Your task to perform on an android device: toggle location history Image 0: 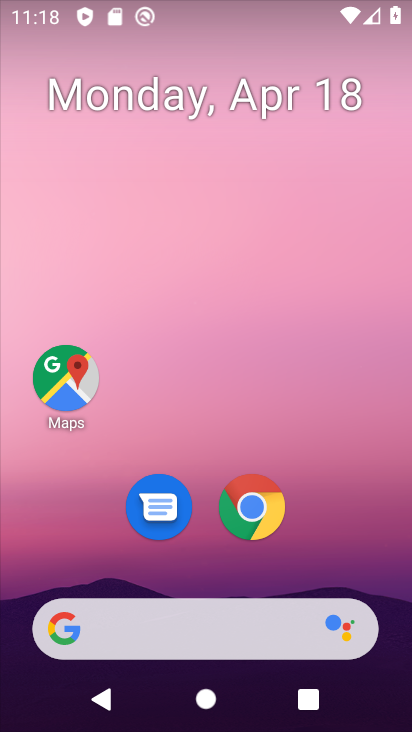
Step 0: drag from (331, 523) to (308, 200)
Your task to perform on an android device: toggle location history Image 1: 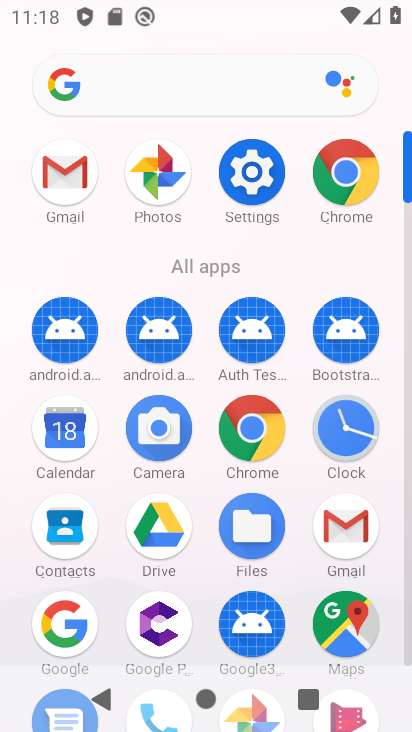
Step 1: click (266, 169)
Your task to perform on an android device: toggle location history Image 2: 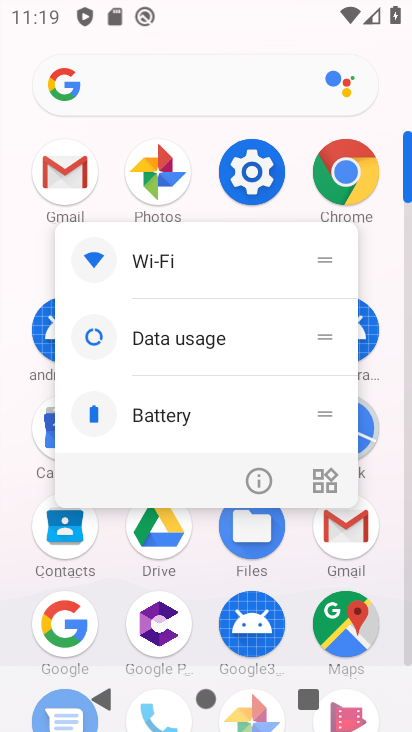
Step 2: click (257, 173)
Your task to perform on an android device: toggle location history Image 3: 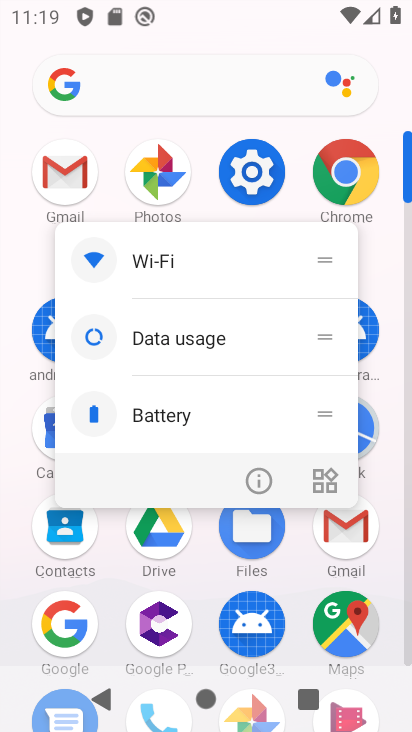
Step 3: click (257, 173)
Your task to perform on an android device: toggle location history Image 4: 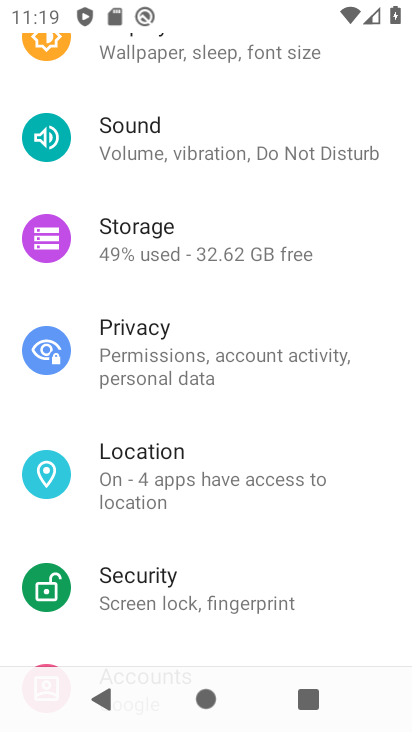
Step 4: click (217, 489)
Your task to perform on an android device: toggle location history Image 5: 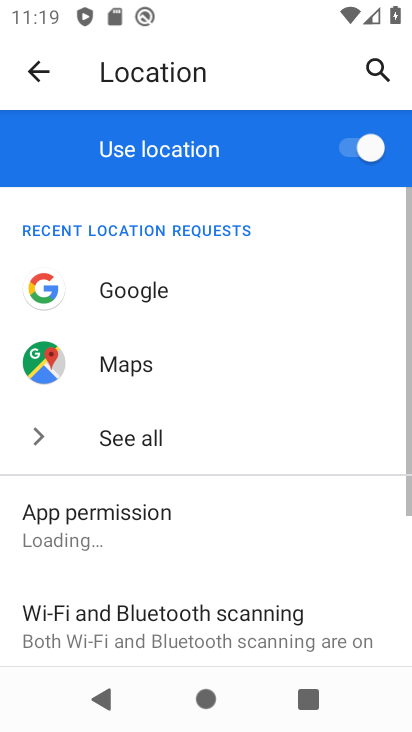
Step 5: drag from (219, 568) to (237, 245)
Your task to perform on an android device: toggle location history Image 6: 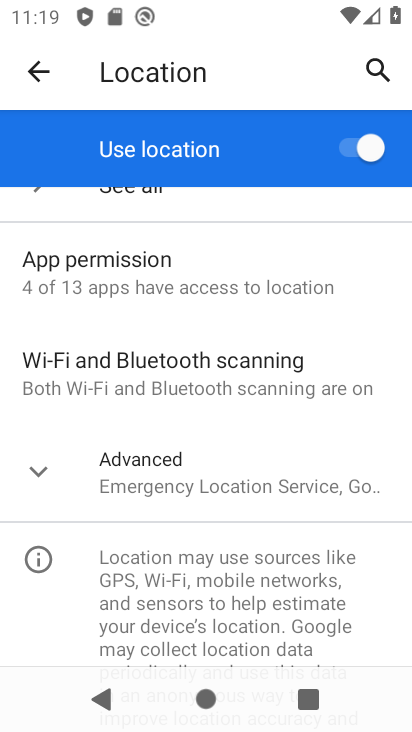
Step 6: click (37, 472)
Your task to perform on an android device: toggle location history Image 7: 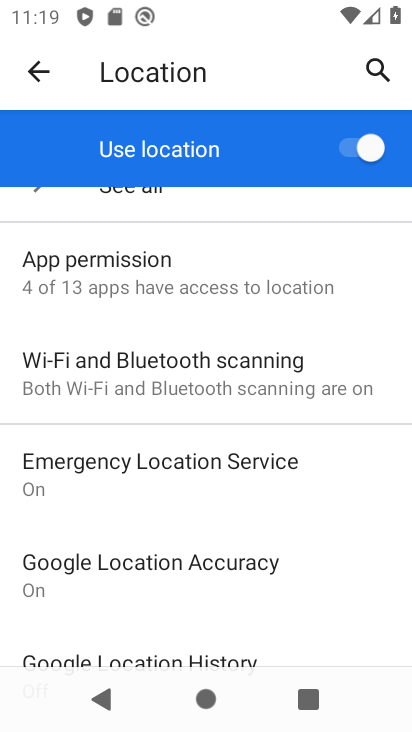
Step 7: drag from (254, 588) to (252, 354)
Your task to perform on an android device: toggle location history Image 8: 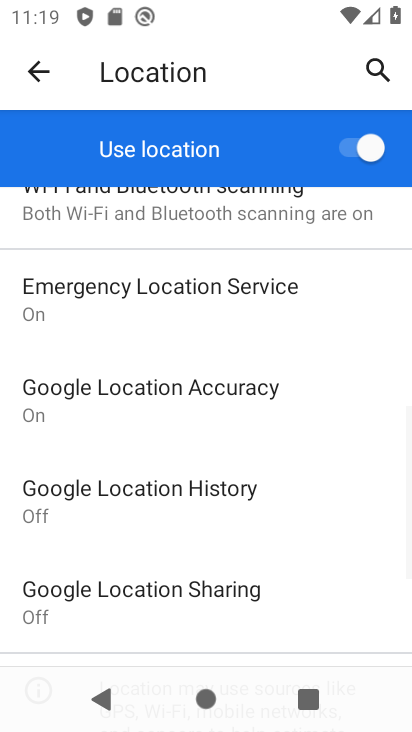
Step 8: click (234, 499)
Your task to perform on an android device: toggle location history Image 9: 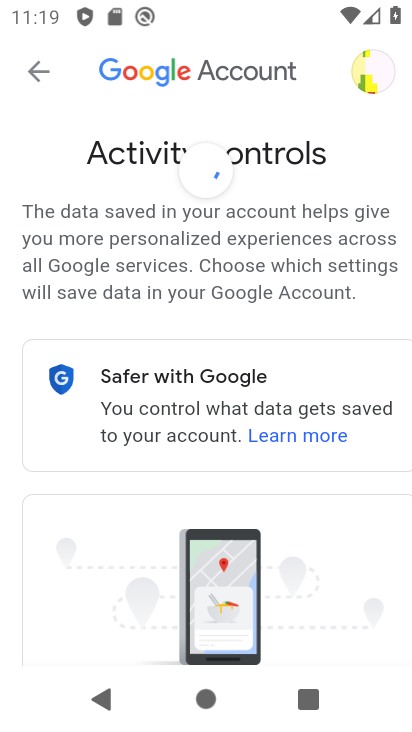
Step 9: drag from (326, 544) to (358, 297)
Your task to perform on an android device: toggle location history Image 10: 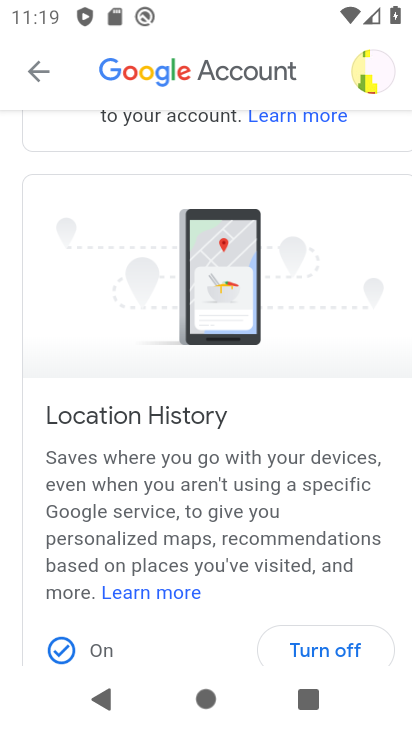
Step 10: click (315, 642)
Your task to perform on an android device: toggle location history Image 11: 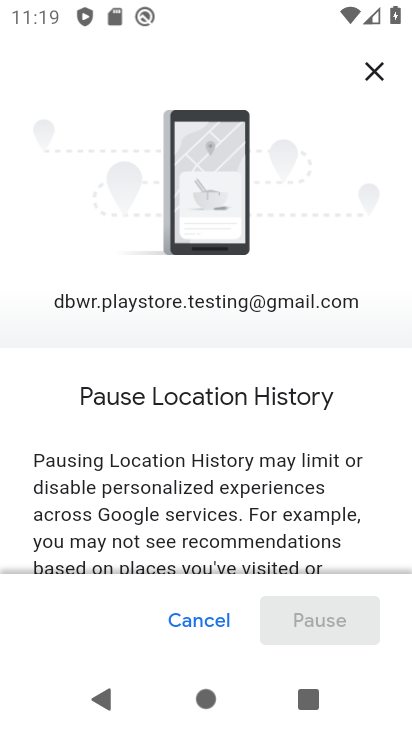
Step 11: drag from (277, 519) to (289, 228)
Your task to perform on an android device: toggle location history Image 12: 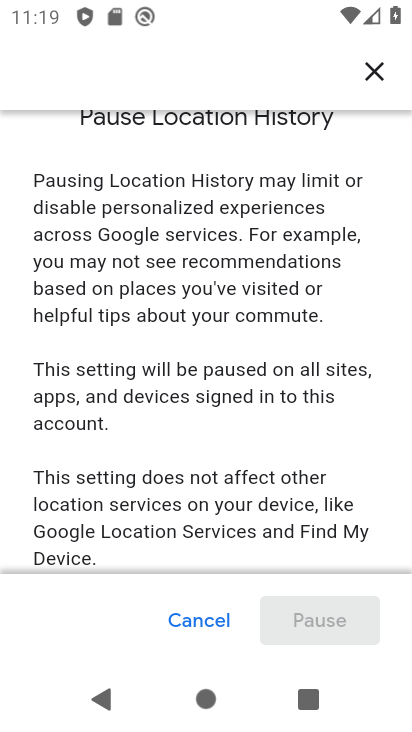
Step 12: drag from (305, 529) to (273, 156)
Your task to perform on an android device: toggle location history Image 13: 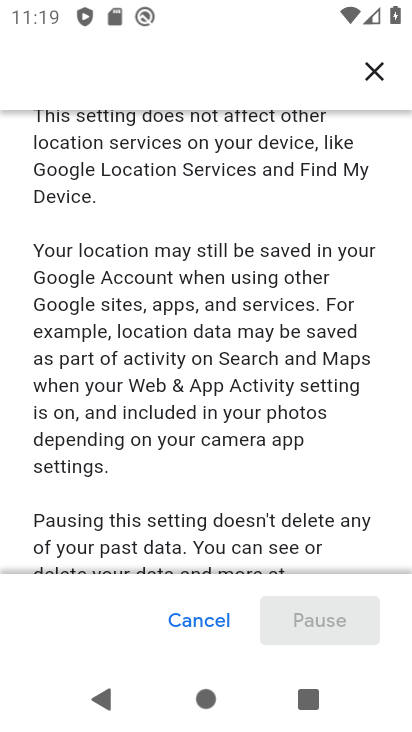
Step 13: drag from (249, 425) to (234, 145)
Your task to perform on an android device: toggle location history Image 14: 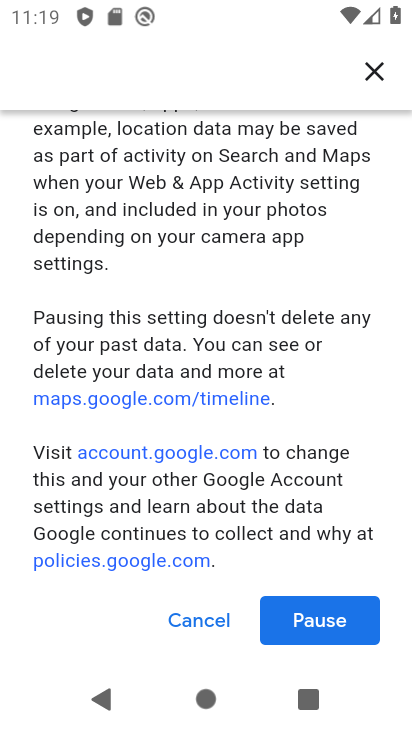
Step 14: drag from (228, 464) to (235, 330)
Your task to perform on an android device: toggle location history Image 15: 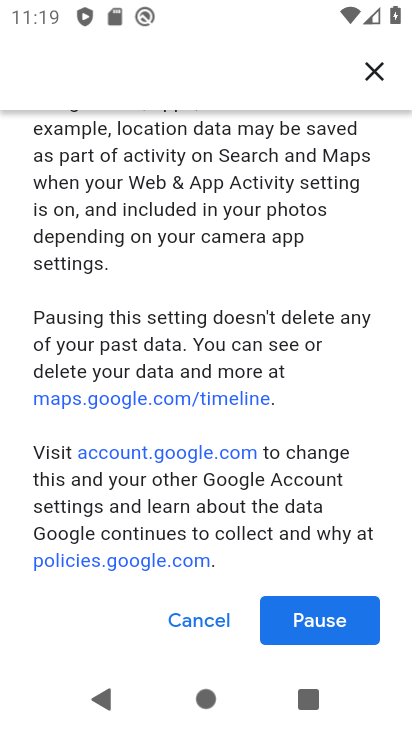
Step 15: click (303, 633)
Your task to perform on an android device: toggle location history Image 16: 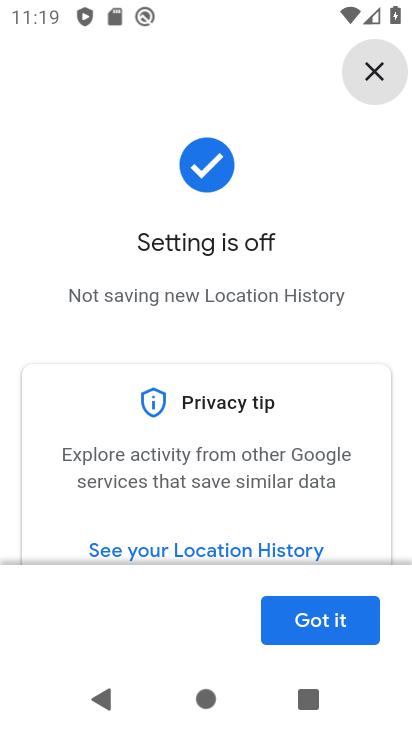
Step 16: click (331, 621)
Your task to perform on an android device: toggle location history Image 17: 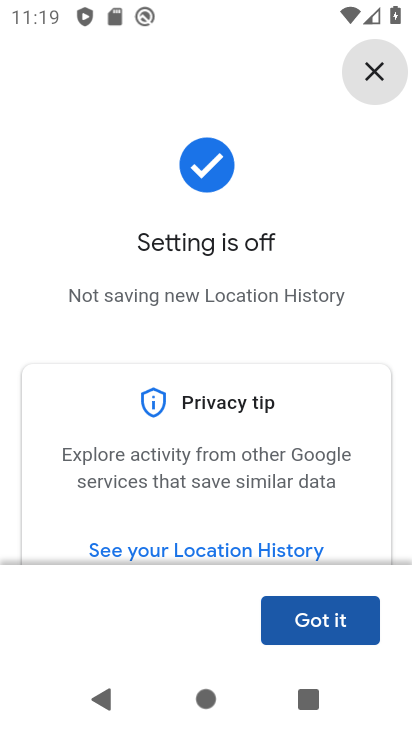
Step 17: task complete